Your task to perform on an android device: open a new tab in the chrome app Image 0: 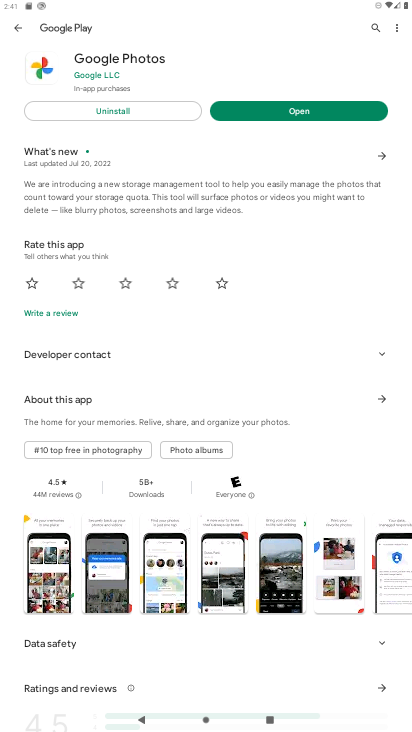
Step 0: press home button
Your task to perform on an android device: open a new tab in the chrome app Image 1: 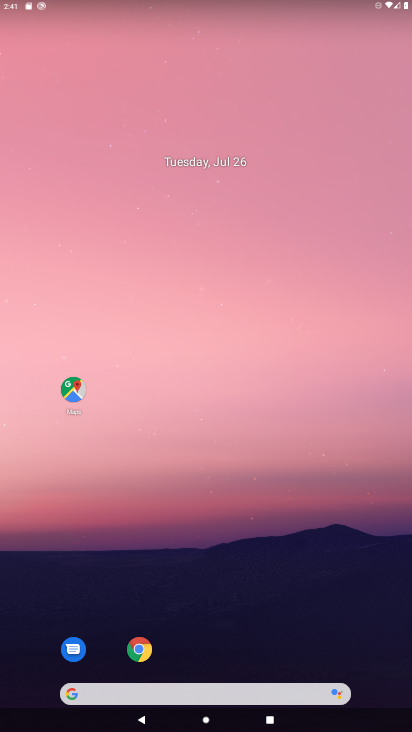
Step 1: click (140, 653)
Your task to perform on an android device: open a new tab in the chrome app Image 2: 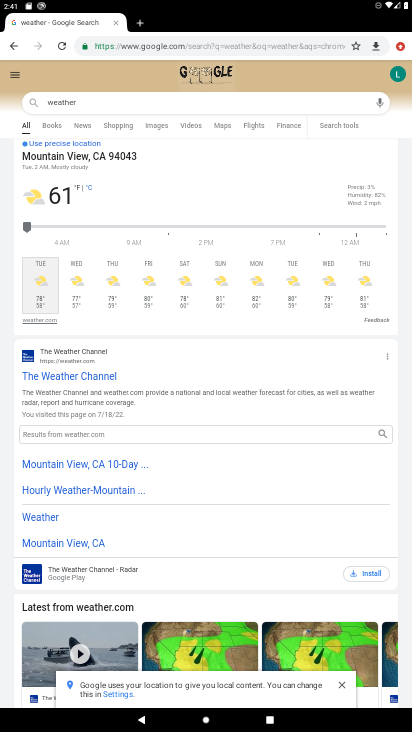
Step 2: task complete